Your task to perform on an android device: Go to notification settings Image 0: 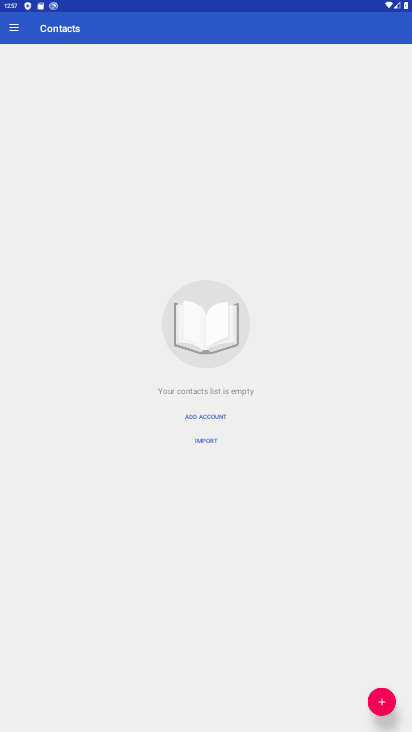
Step 0: press home button
Your task to perform on an android device: Go to notification settings Image 1: 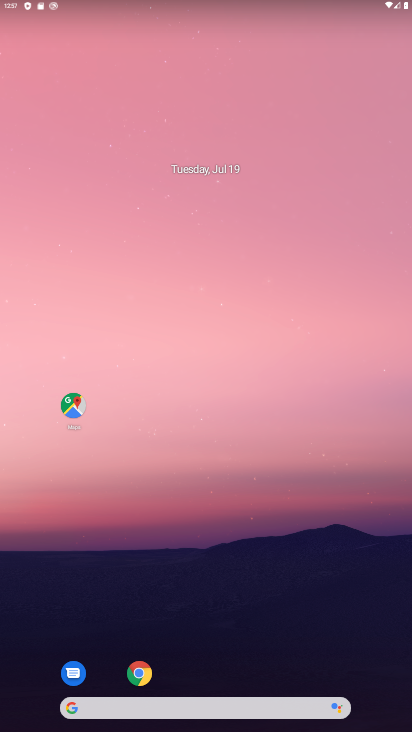
Step 1: drag from (201, 688) to (116, 103)
Your task to perform on an android device: Go to notification settings Image 2: 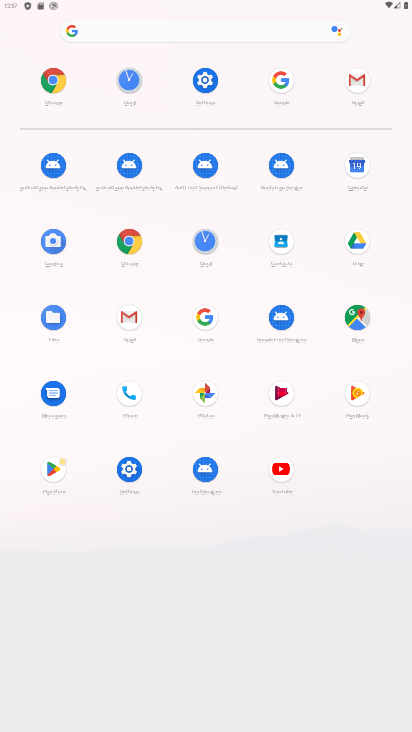
Step 2: click (122, 470)
Your task to perform on an android device: Go to notification settings Image 3: 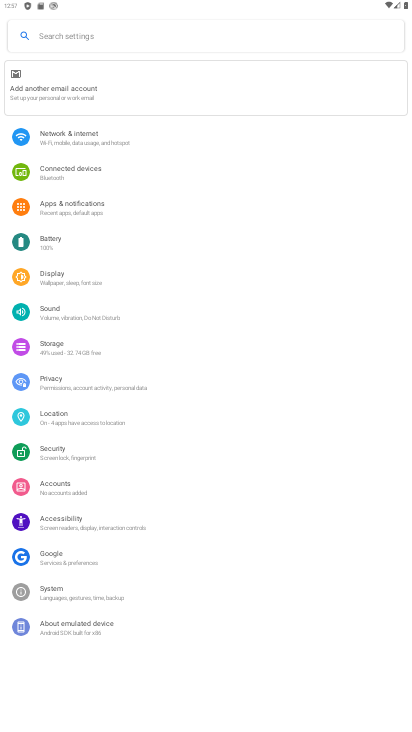
Step 3: click (113, 215)
Your task to perform on an android device: Go to notification settings Image 4: 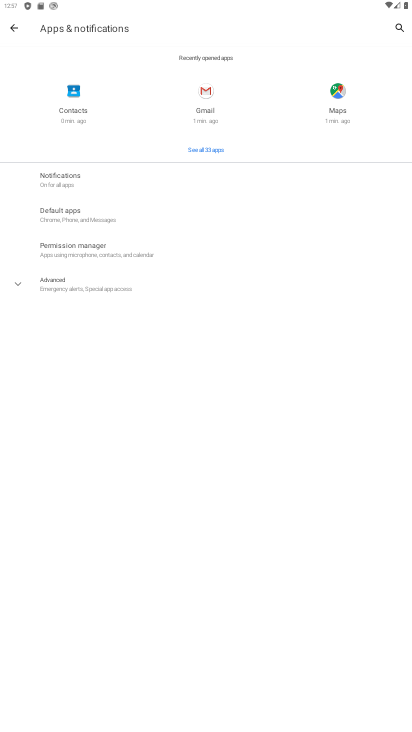
Step 4: click (78, 180)
Your task to perform on an android device: Go to notification settings Image 5: 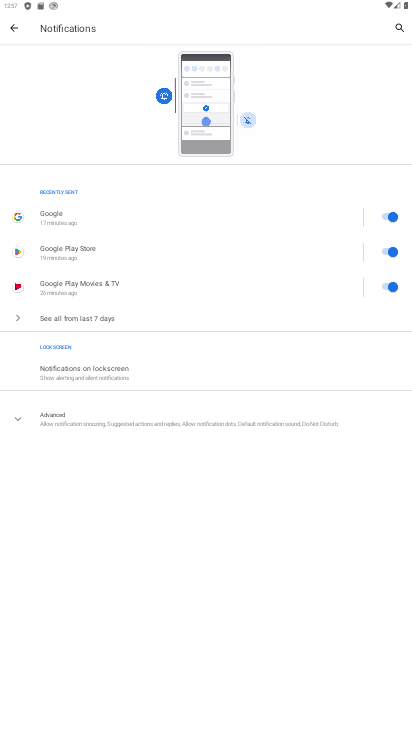
Step 5: task complete